Your task to perform on an android device: turn off priority inbox in the gmail app Image 0: 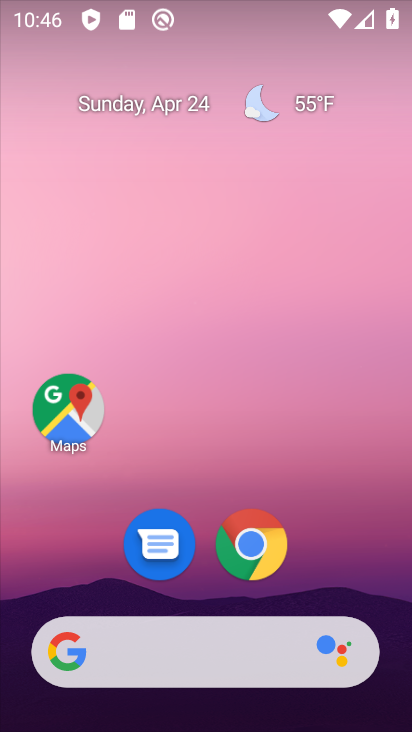
Step 0: task complete